Your task to perform on an android device: Open internet settings Image 0: 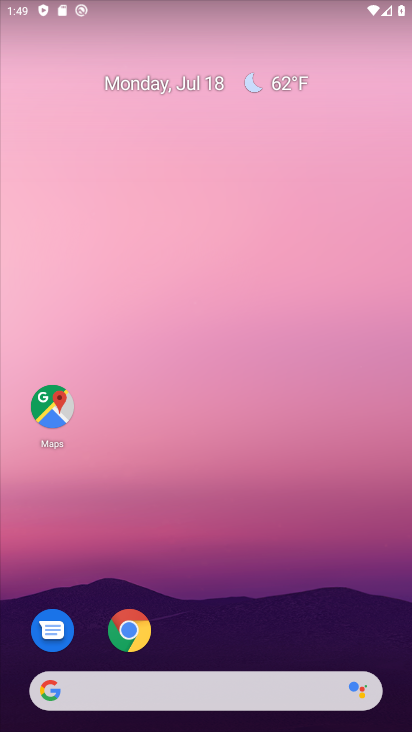
Step 0: drag from (254, 666) to (225, 122)
Your task to perform on an android device: Open internet settings Image 1: 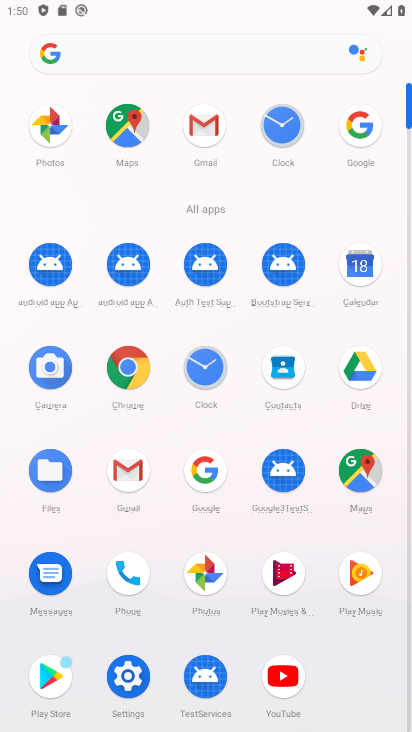
Step 1: click (135, 675)
Your task to perform on an android device: Open internet settings Image 2: 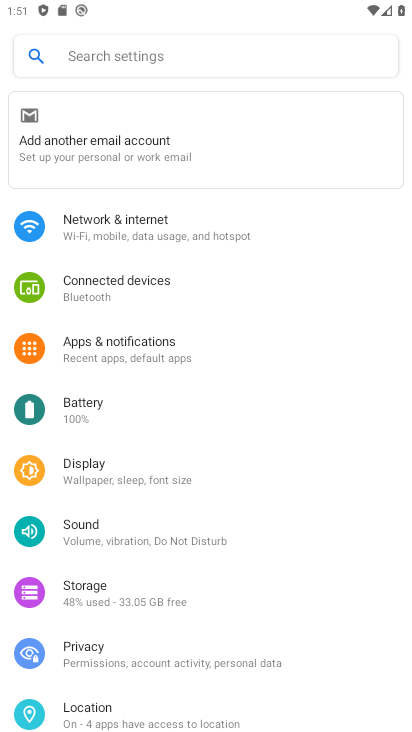
Step 2: click (114, 240)
Your task to perform on an android device: Open internet settings Image 3: 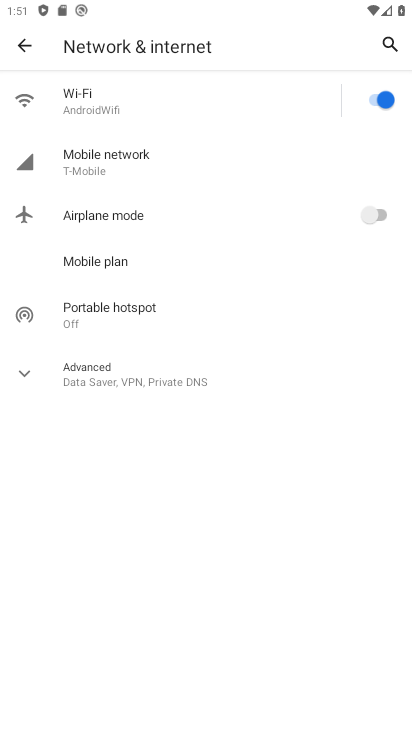
Step 3: click (121, 382)
Your task to perform on an android device: Open internet settings Image 4: 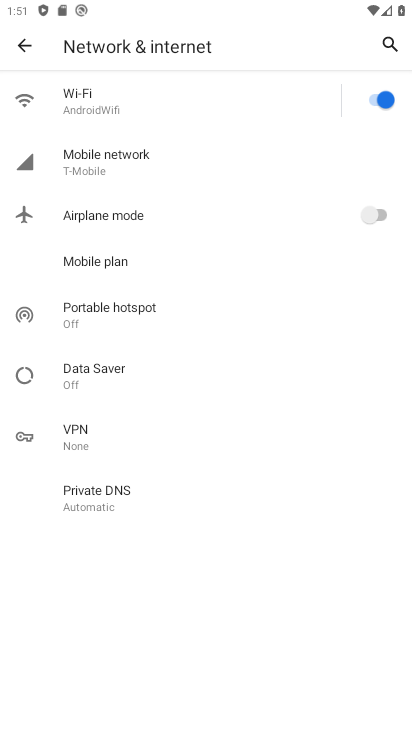
Step 4: task complete